Your task to perform on an android device: show emergency info Image 0: 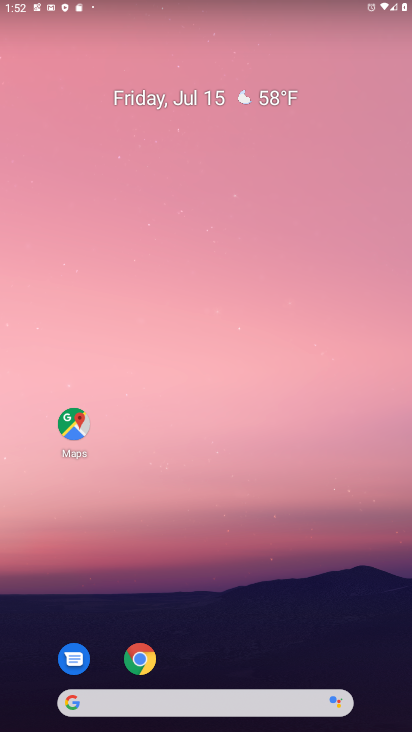
Step 0: drag from (216, 724) to (204, 274)
Your task to perform on an android device: show emergency info Image 1: 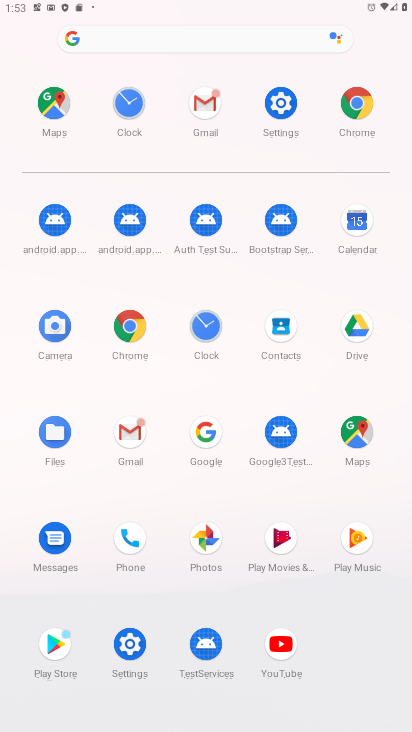
Step 1: click (286, 100)
Your task to perform on an android device: show emergency info Image 2: 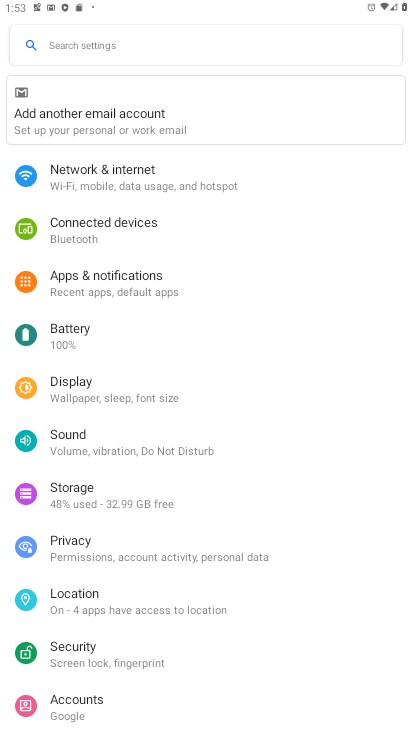
Step 2: drag from (126, 697) to (160, 323)
Your task to perform on an android device: show emergency info Image 3: 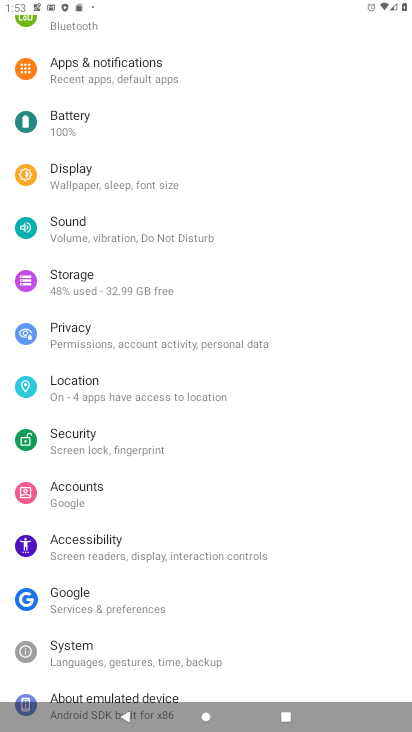
Step 3: drag from (162, 674) to (161, 298)
Your task to perform on an android device: show emergency info Image 4: 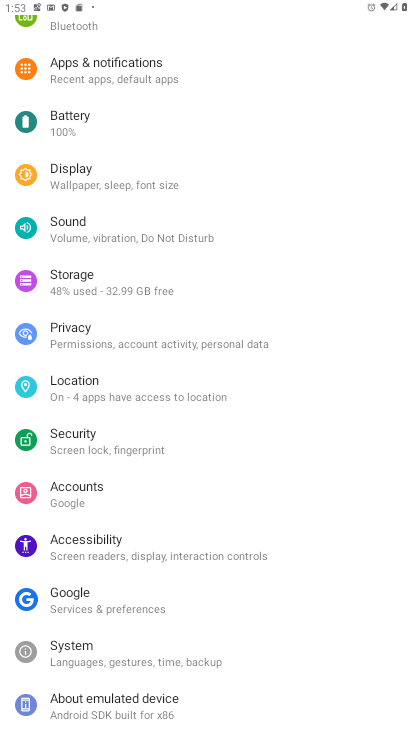
Step 4: click (125, 696)
Your task to perform on an android device: show emergency info Image 5: 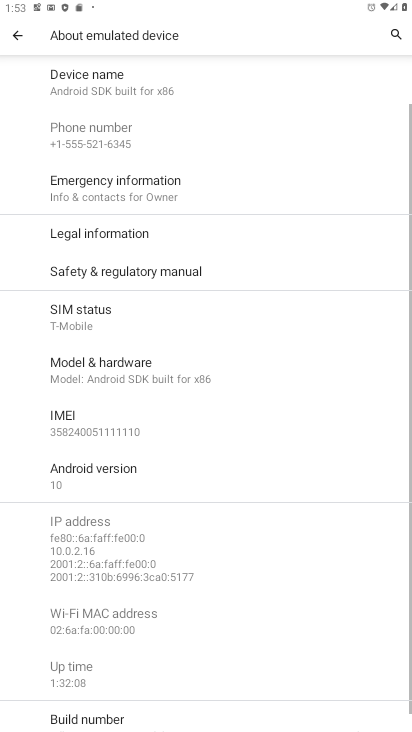
Step 5: click (121, 177)
Your task to perform on an android device: show emergency info Image 6: 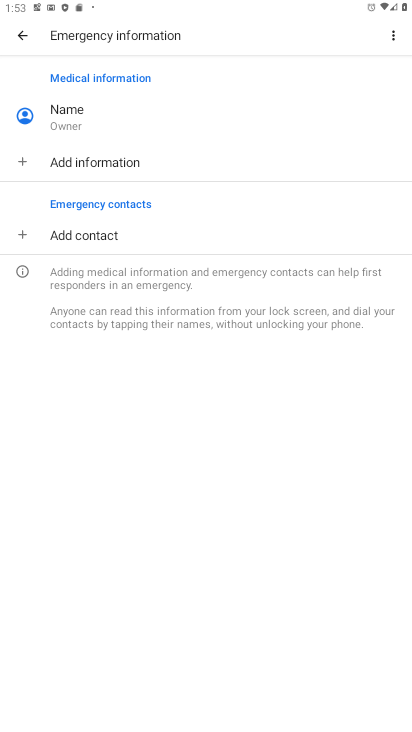
Step 6: task complete